Your task to perform on an android device: open chrome privacy settings Image 0: 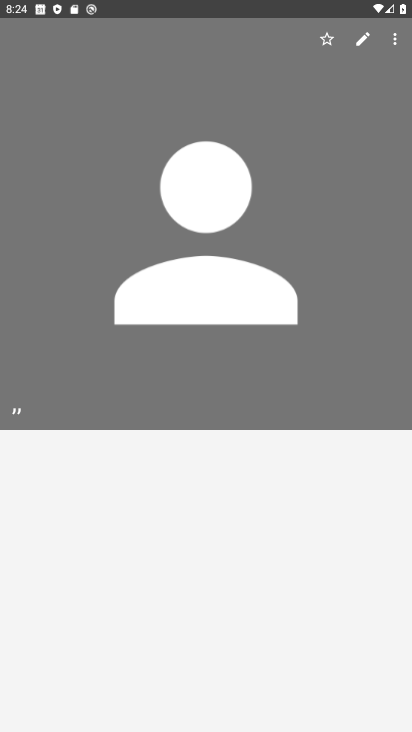
Step 0: drag from (259, 610) to (281, 168)
Your task to perform on an android device: open chrome privacy settings Image 1: 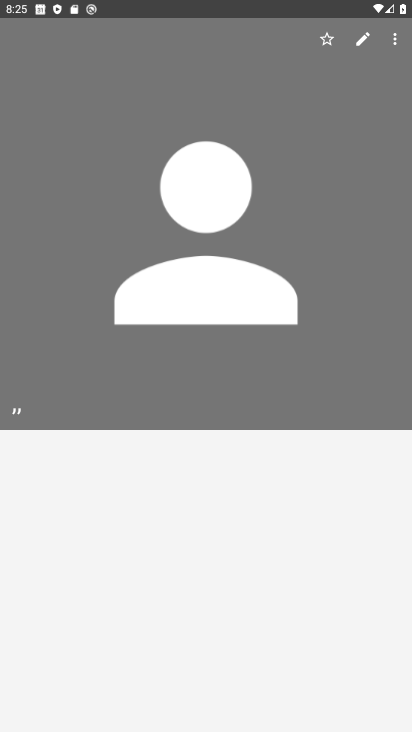
Step 1: drag from (149, 679) to (256, 234)
Your task to perform on an android device: open chrome privacy settings Image 2: 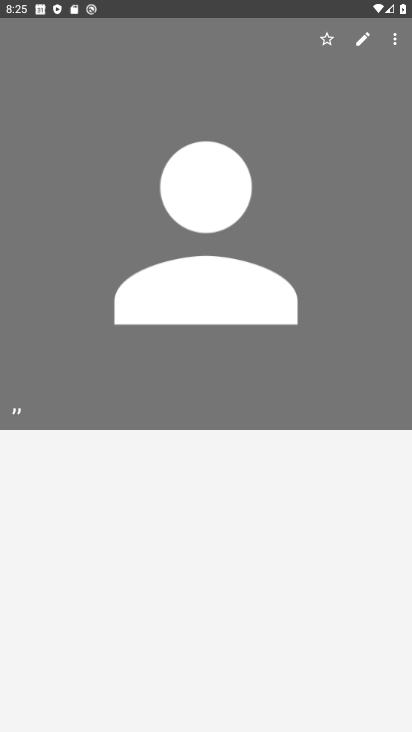
Step 2: press home button
Your task to perform on an android device: open chrome privacy settings Image 3: 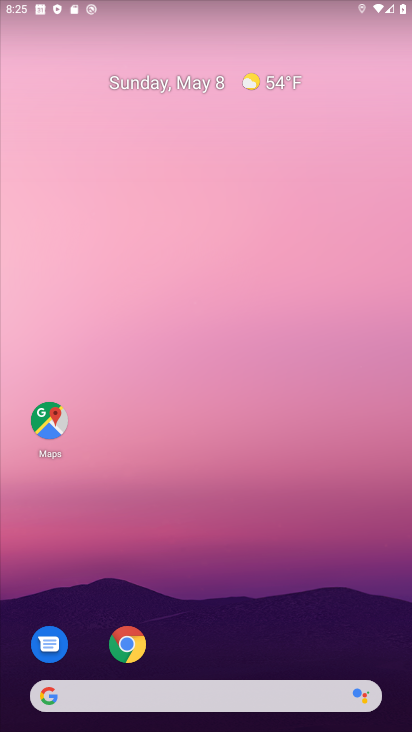
Step 3: drag from (221, 595) to (335, 210)
Your task to perform on an android device: open chrome privacy settings Image 4: 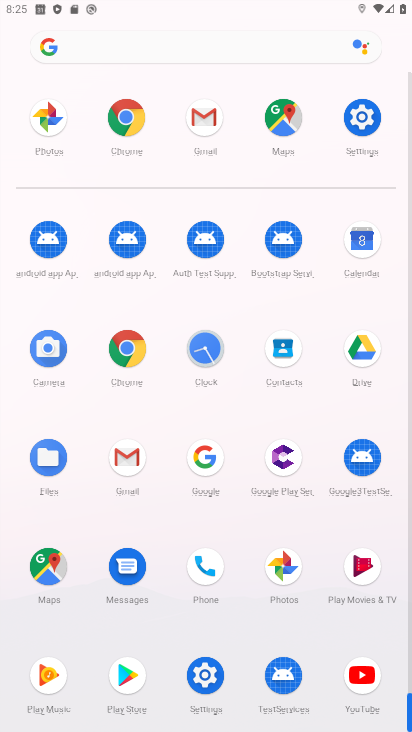
Step 4: click (194, 664)
Your task to perform on an android device: open chrome privacy settings Image 5: 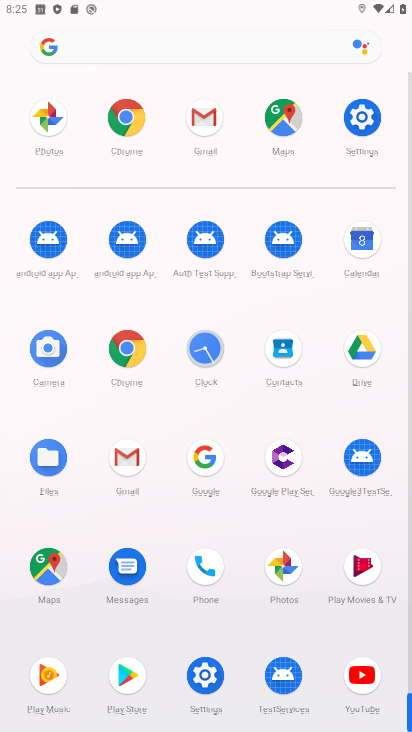
Step 5: click (196, 666)
Your task to perform on an android device: open chrome privacy settings Image 6: 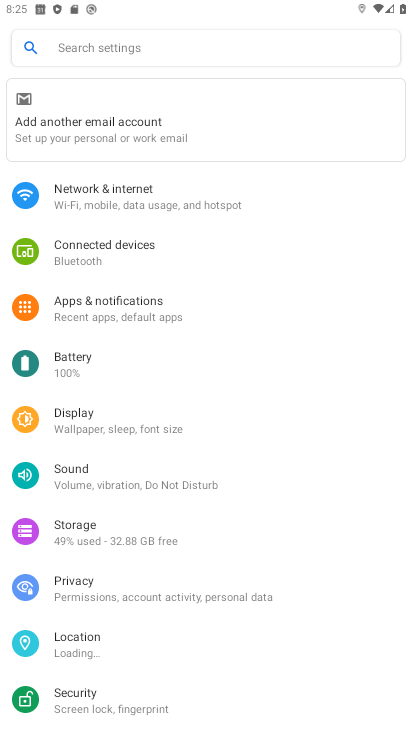
Step 6: drag from (235, 671) to (252, 88)
Your task to perform on an android device: open chrome privacy settings Image 7: 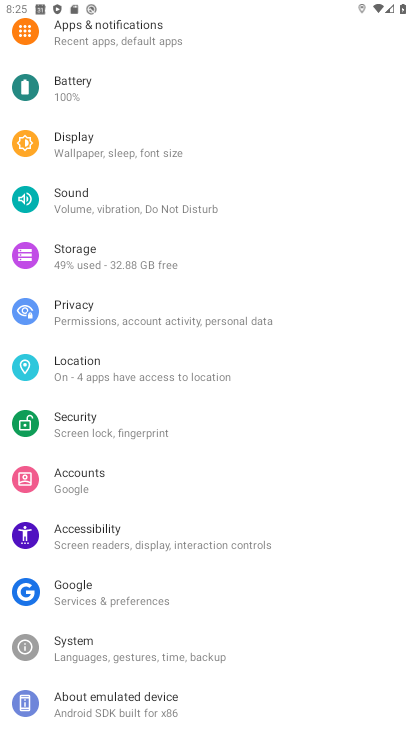
Step 7: press home button
Your task to perform on an android device: open chrome privacy settings Image 8: 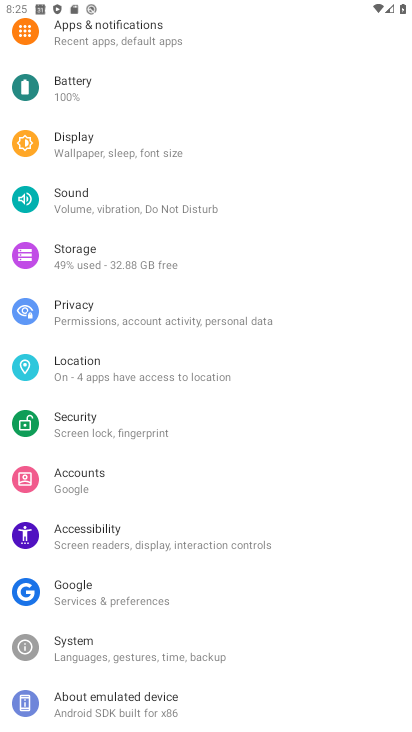
Step 8: press home button
Your task to perform on an android device: open chrome privacy settings Image 9: 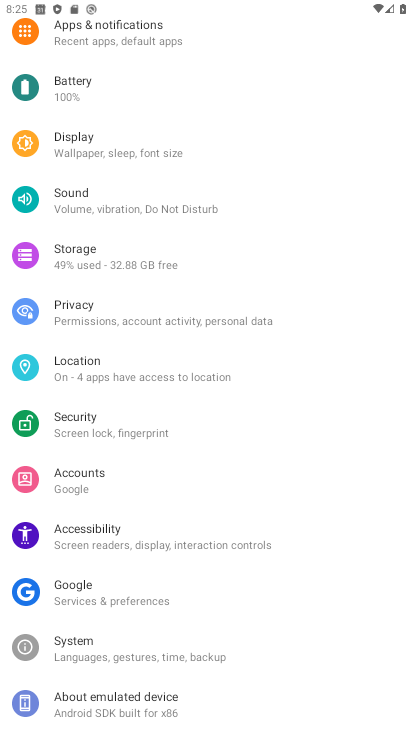
Step 9: drag from (190, 658) to (301, 139)
Your task to perform on an android device: open chrome privacy settings Image 10: 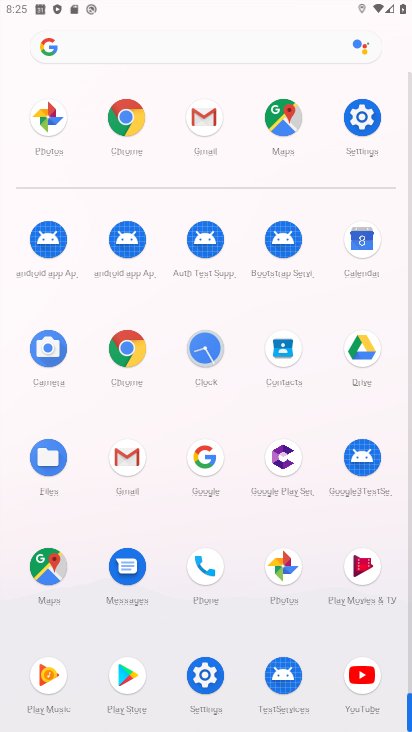
Step 10: click (114, 345)
Your task to perform on an android device: open chrome privacy settings Image 11: 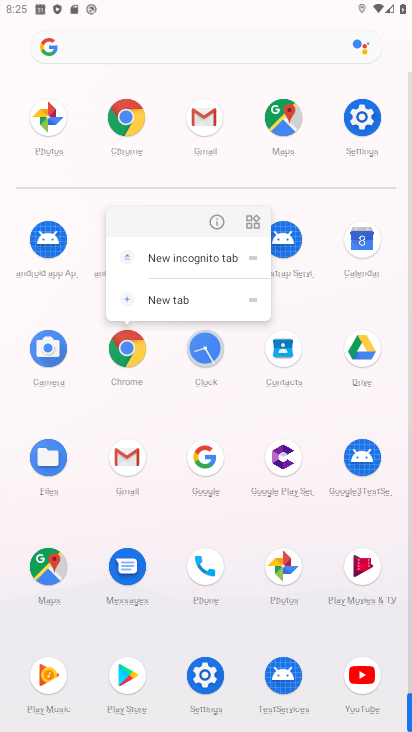
Step 11: click (219, 216)
Your task to perform on an android device: open chrome privacy settings Image 12: 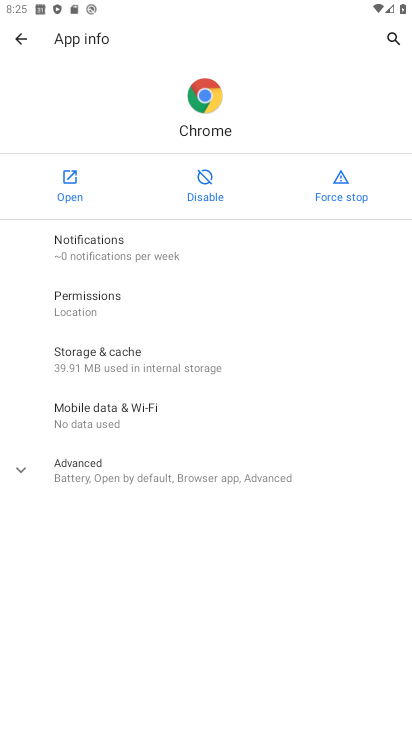
Step 12: click (66, 181)
Your task to perform on an android device: open chrome privacy settings Image 13: 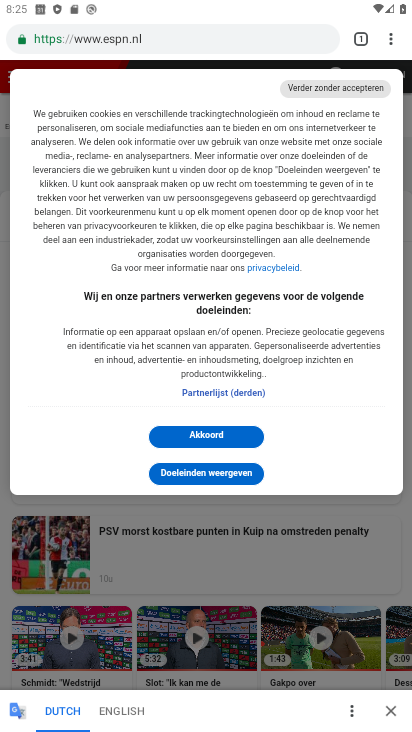
Step 13: drag from (246, 606) to (275, 88)
Your task to perform on an android device: open chrome privacy settings Image 14: 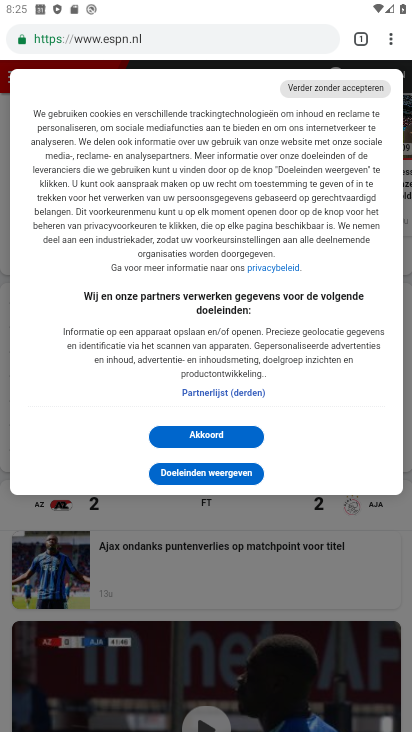
Step 14: drag from (394, 35) to (278, 480)
Your task to perform on an android device: open chrome privacy settings Image 15: 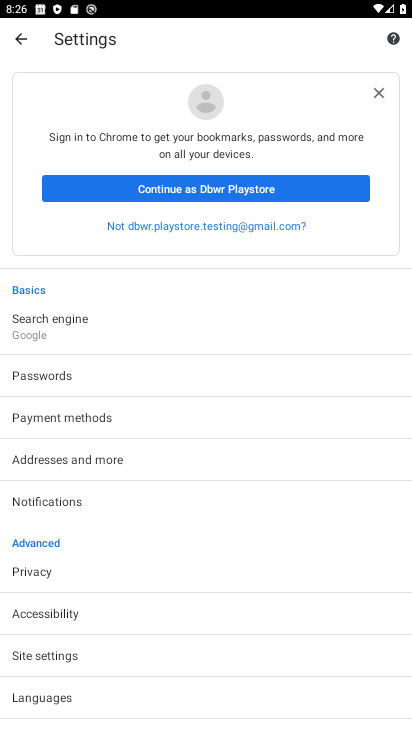
Step 15: drag from (193, 600) to (248, 129)
Your task to perform on an android device: open chrome privacy settings Image 16: 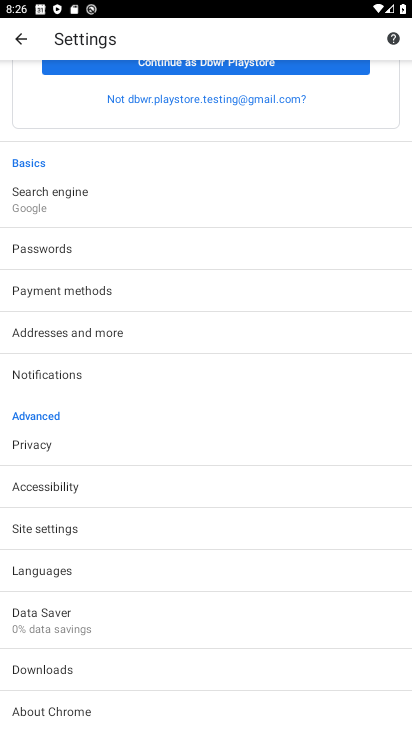
Step 16: click (98, 522)
Your task to perform on an android device: open chrome privacy settings Image 17: 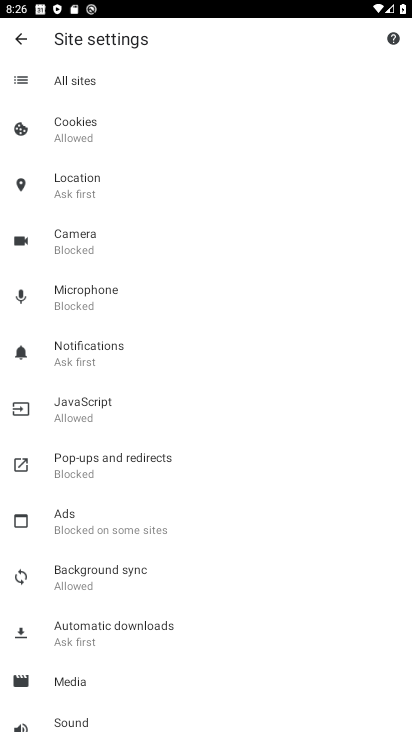
Step 17: drag from (165, 589) to (246, 50)
Your task to perform on an android device: open chrome privacy settings Image 18: 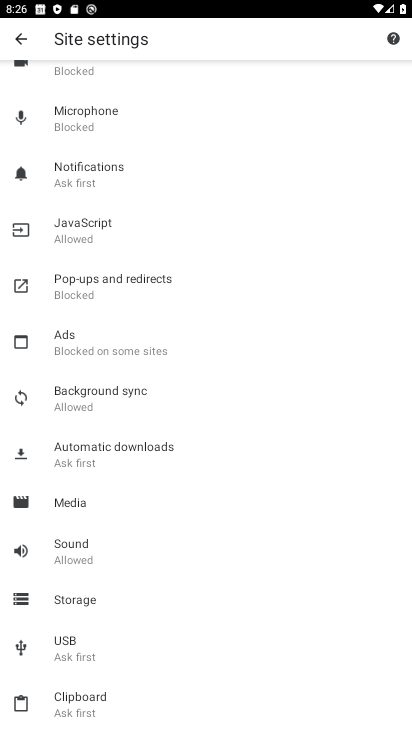
Step 18: drag from (182, 195) to (226, 622)
Your task to perform on an android device: open chrome privacy settings Image 19: 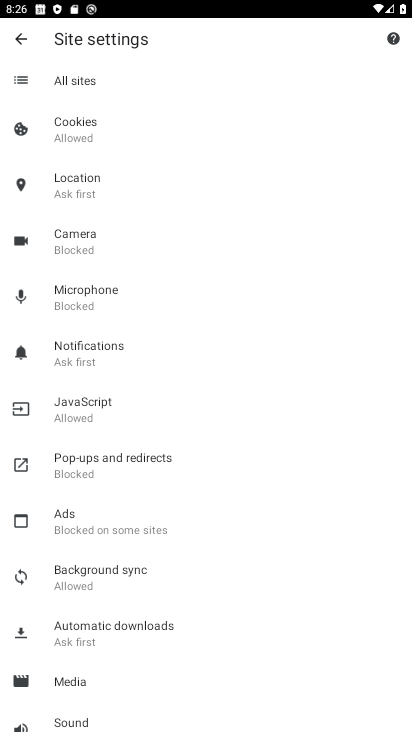
Step 19: click (21, 38)
Your task to perform on an android device: open chrome privacy settings Image 20: 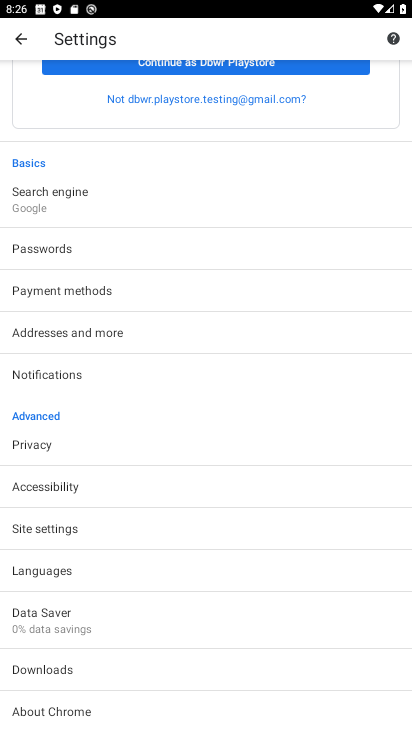
Step 20: click (38, 437)
Your task to perform on an android device: open chrome privacy settings Image 21: 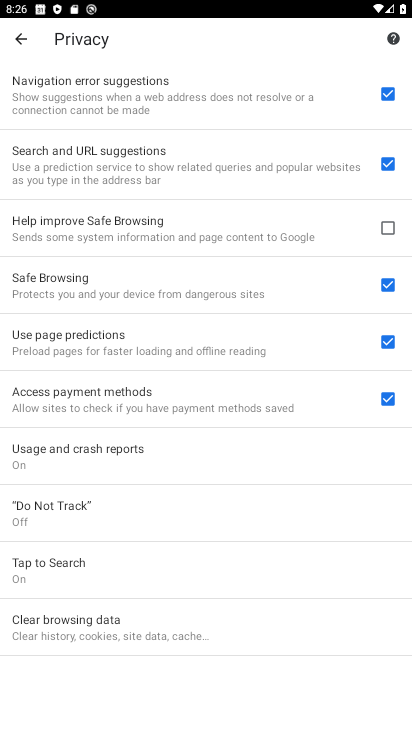
Step 21: task complete